Your task to perform on an android device: open a bookmark in the chrome app Image 0: 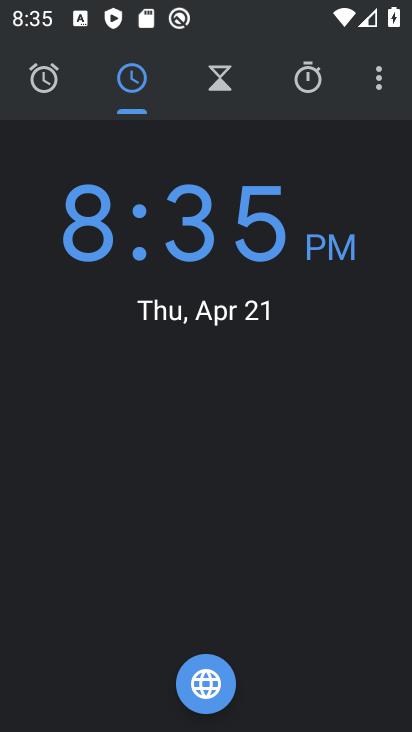
Step 0: press home button
Your task to perform on an android device: open a bookmark in the chrome app Image 1: 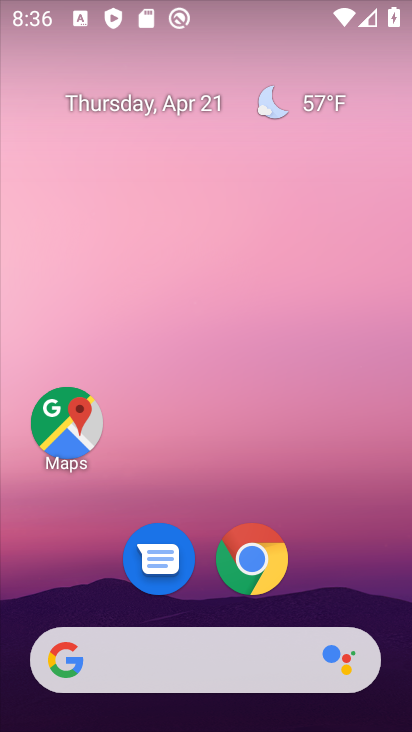
Step 1: click (267, 557)
Your task to perform on an android device: open a bookmark in the chrome app Image 2: 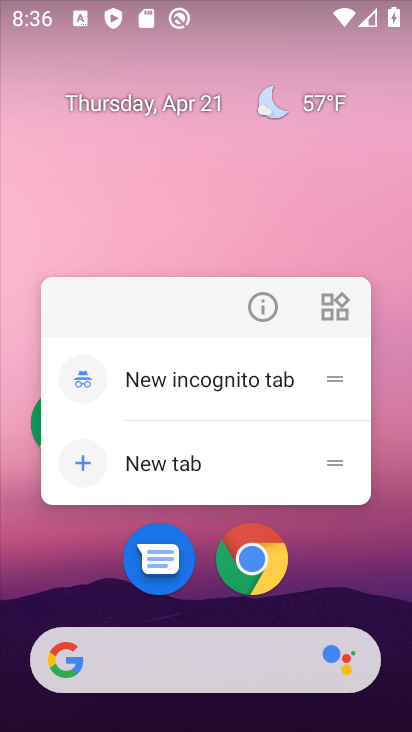
Step 2: click (267, 557)
Your task to perform on an android device: open a bookmark in the chrome app Image 3: 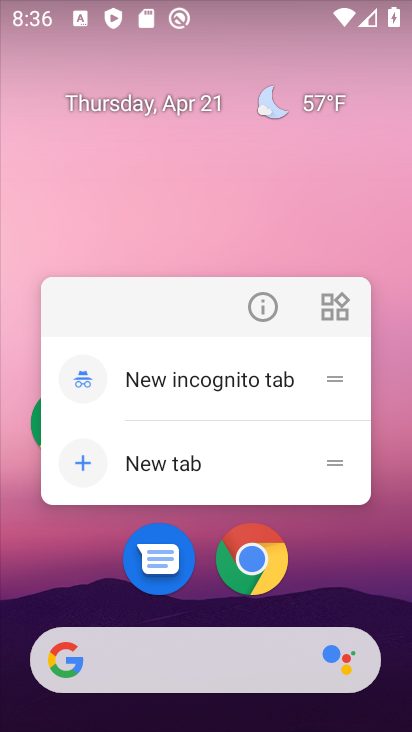
Step 3: click (267, 557)
Your task to perform on an android device: open a bookmark in the chrome app Image 4: 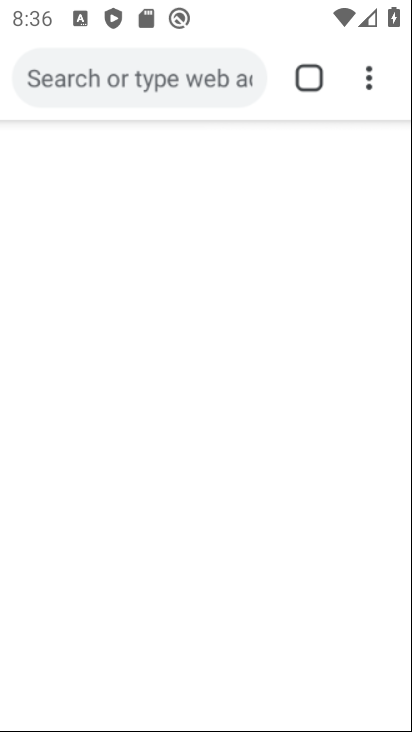
Step 4: click (267, 557)
Your task to perform on an android device: open a bookmark in the chrome app Image 5: 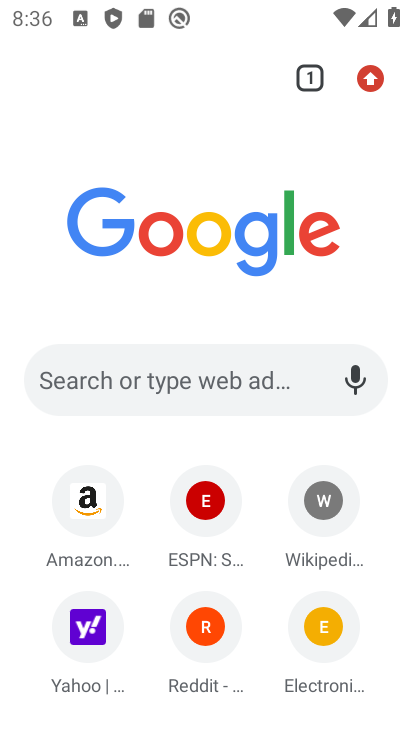
Step 5: click (365, 74)
Your task to perform on an android device: open a bookmark in the chrome app Image 6: 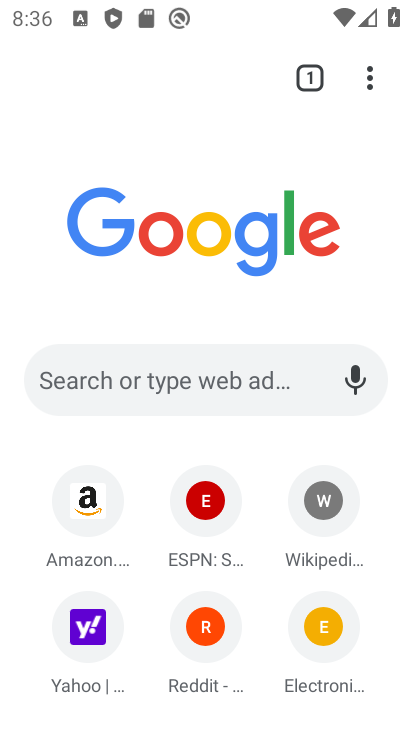
Step 6: click (365, 74)
Your task to perform on an android device: open a bookmark in the chrome app Image 7: 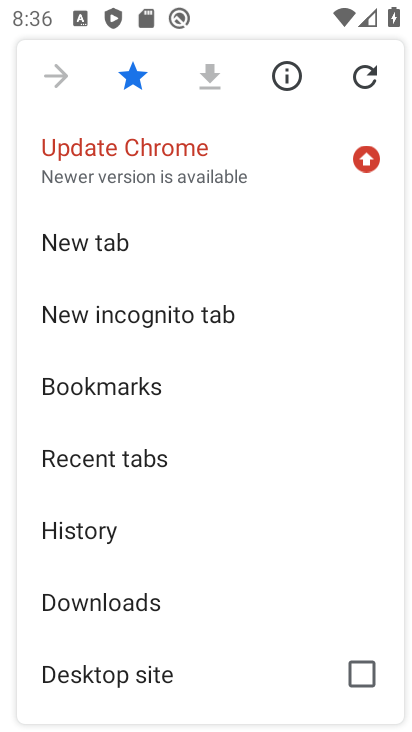
Step 7: click (140, 390)
Your task to perform on an android device: open a bookmark in the chrome app Image 8: 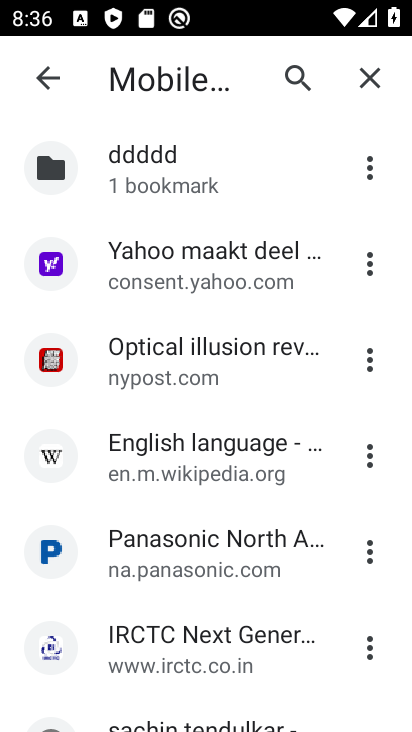
Step 8: click (164, 474)
Your task to perform on an android device: open a bookmark in the chrome app Image 9: 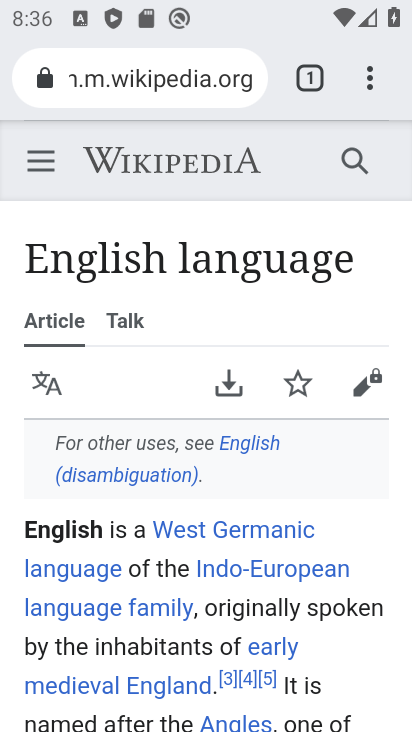
Step 9: task complete